Your task to perform on an android device: turn on javascript in the chrome app Image 0: 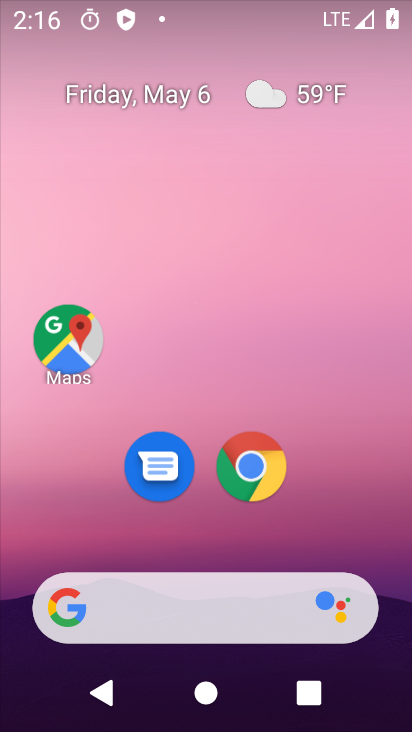
Step 0: click (255, 464)
Your task to perform on an android device: turn on javascript in the chrome app Image 1: 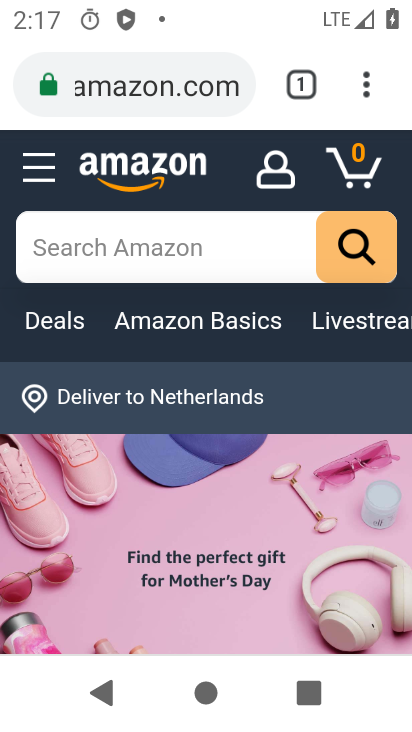
Step 1: click (369, 85)
Your task to perform on an android device: turn on javascript in the chrome app Image 2: 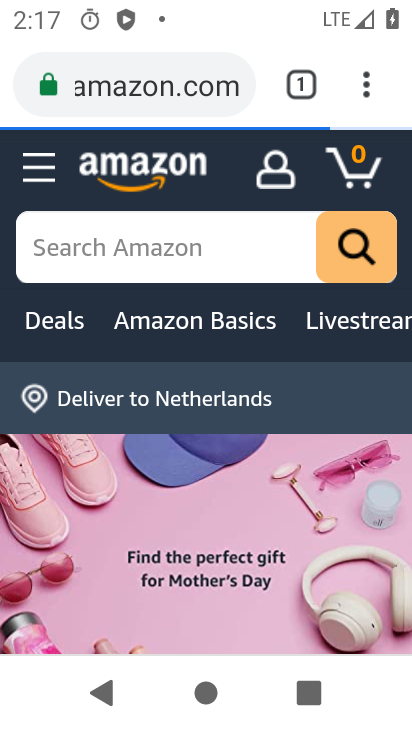
Step 2: drag from (370, 84) to (156, 510)
Your task to perform on an android device: turn on javascript in the chrome app Image 3: 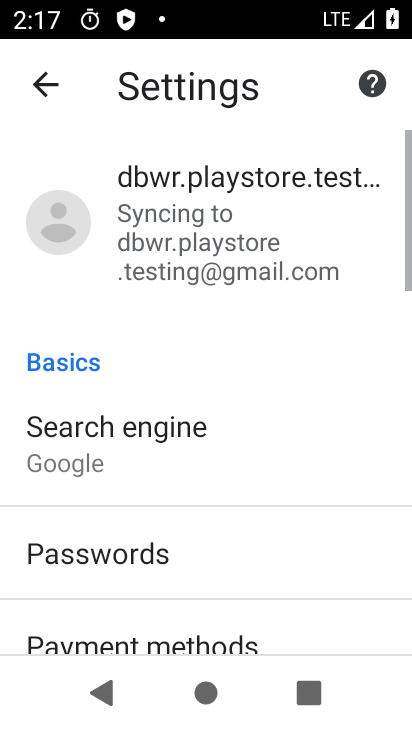
Step 3: drag from (258, 585) to (287, 120)
Your task to perform on an android device: turn on javascript in the chrome app Image 4: 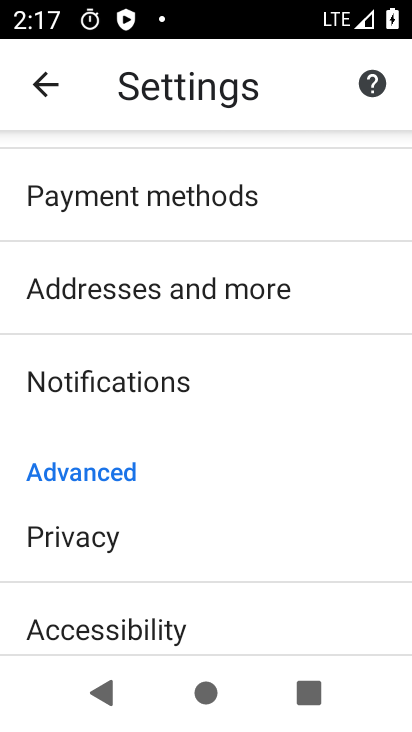
Step 4: drag from (140, 541) to (275, 146)
Your task to perform on an android device: turn on javascript in the chrome app Image 5: 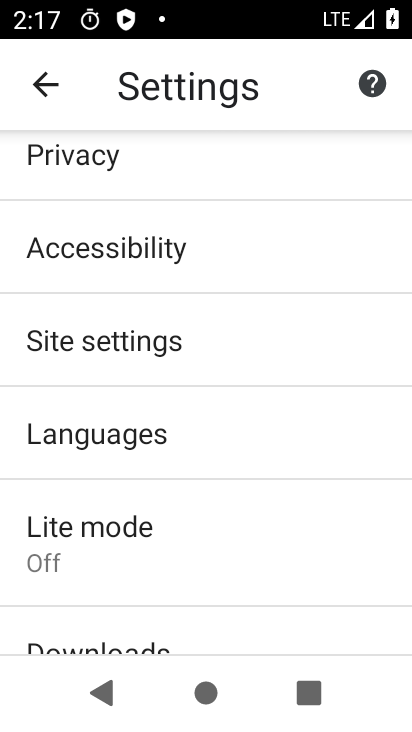
Step 5: click (152, 343)
Your task to perform on an android device: turn on javascript in the chrome app Image 6: 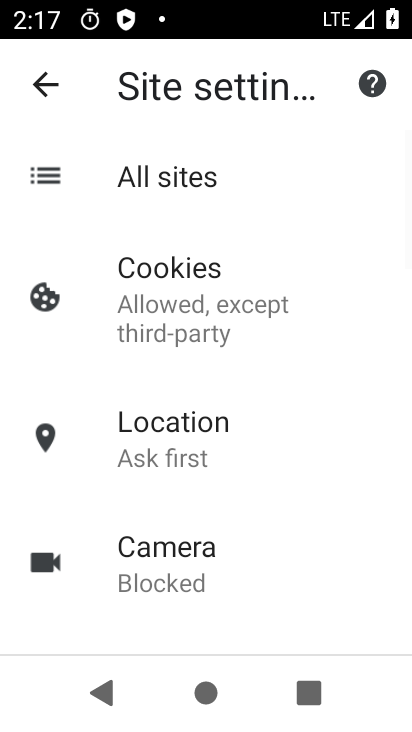
Step 6: drag from (184, 544) to (289, 185)
Your task to perform on an android device: turn on javascript in the chrome app Image 7: 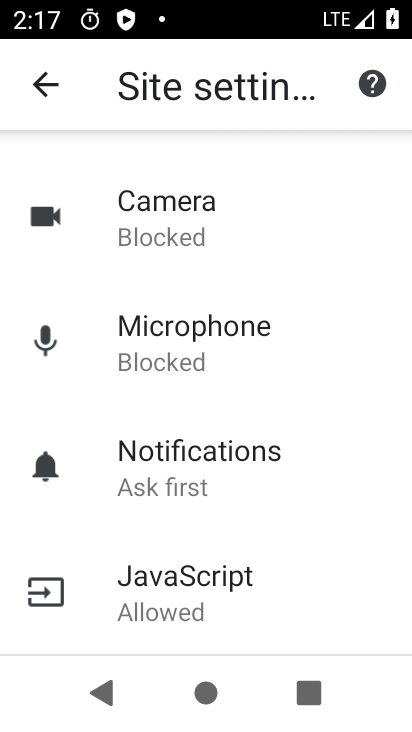
Step 7: drag from (224, 476) to (274, 238)
Your task to perform on an android device: turn on javascript in the chrome app Image 8: 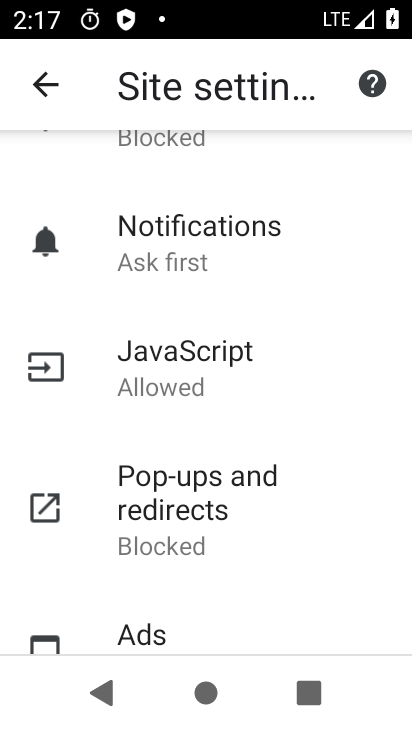
Step 8: click (191, 377)
Your task to perform on an android device: turn on javascript in the chrome app Image 9: 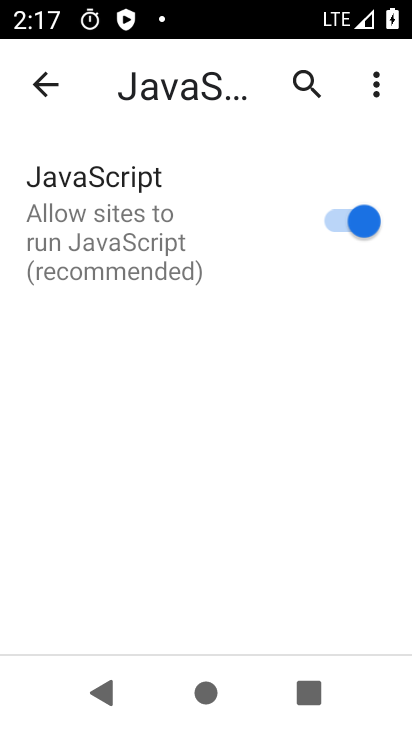
Step 9: task complete